Your task to perform on an android device: turn notification dots on Image 0: 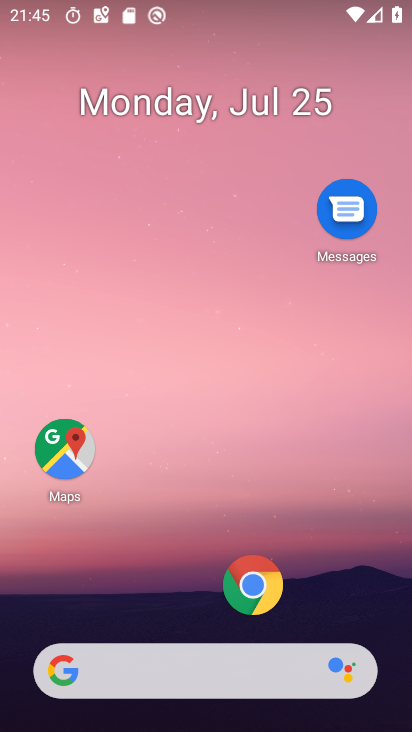
Step 0: drag from (205, 655) to (330, 89)
Your task to perform on an android device: turn notification dots on Image 1: 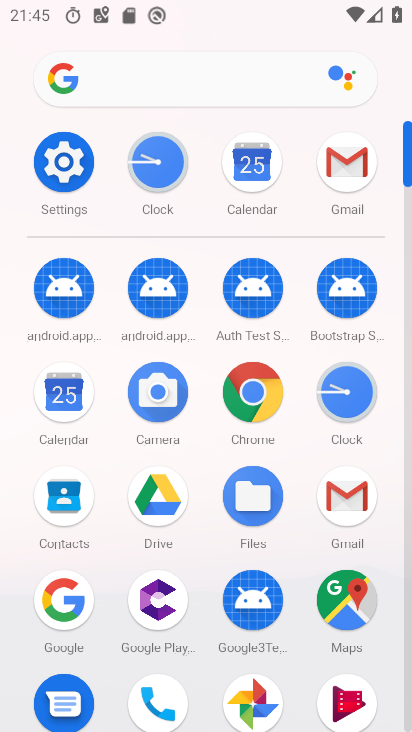
Step 1: click (70, 164)
Your task to perform on an android device: turn notification dots on Image 2: 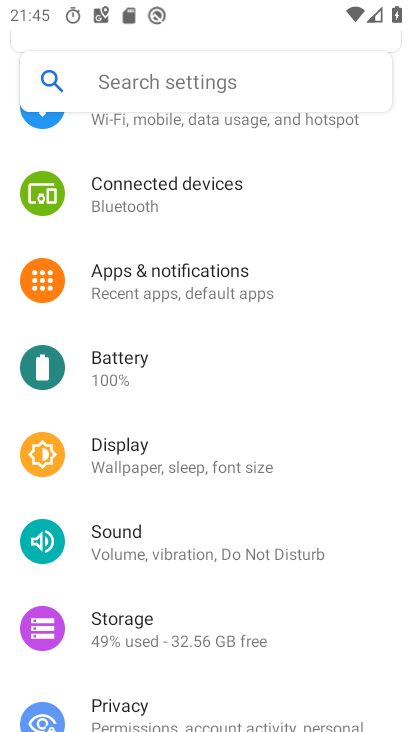
Step 2: click (188, 283)
Your task to perform on an android device: turn notification dots on Image 3: 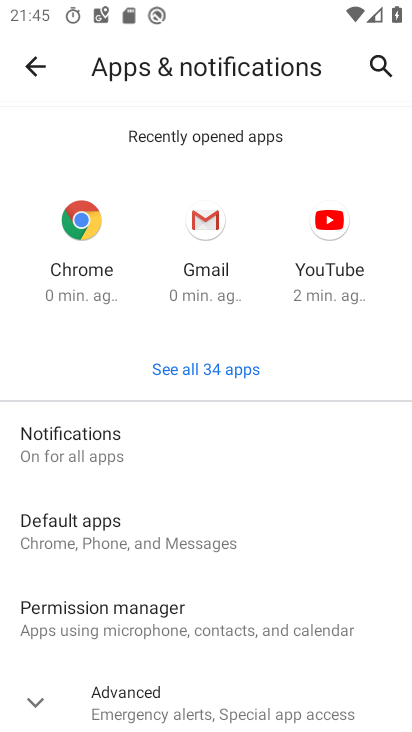
Step 3: drag from (236, 592) to (327, 180)
Your task to perform on an android device: turn notification dots on Image 4: 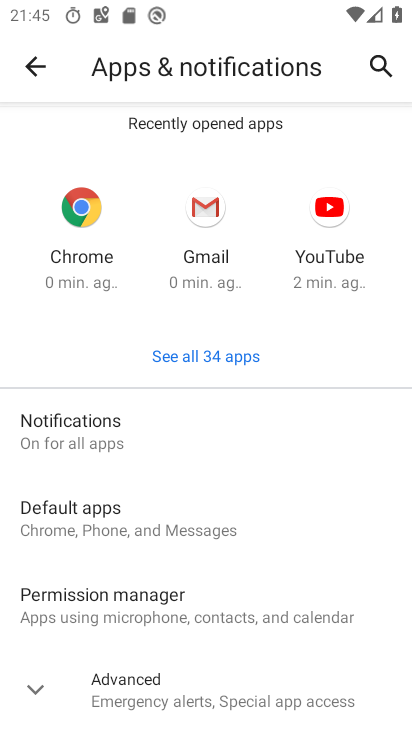
Step 4: click (156, 675)
Your task to perform on an android device: turn notification dots on Image 5: 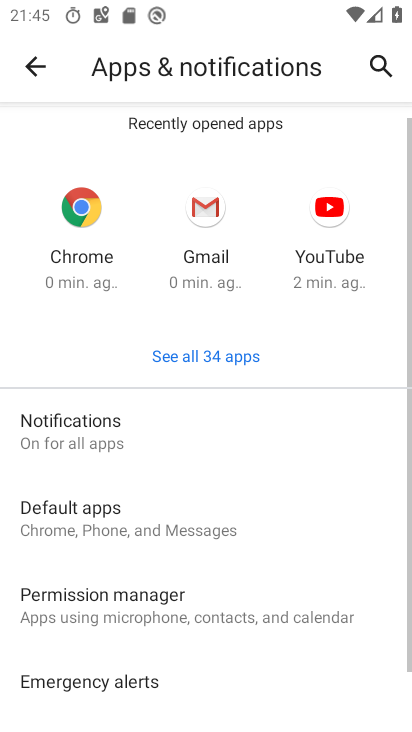
Step 5: drag from (212, 656) to (320, 142)
Your task to perform on an android device: turn notification dots on Image 6: 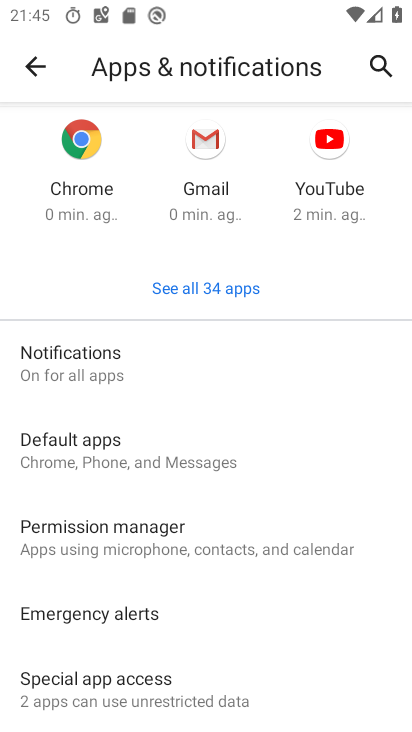
Step 6: click (99, 356)
Your task to perform on an android device: turn notification dots on Image 7: 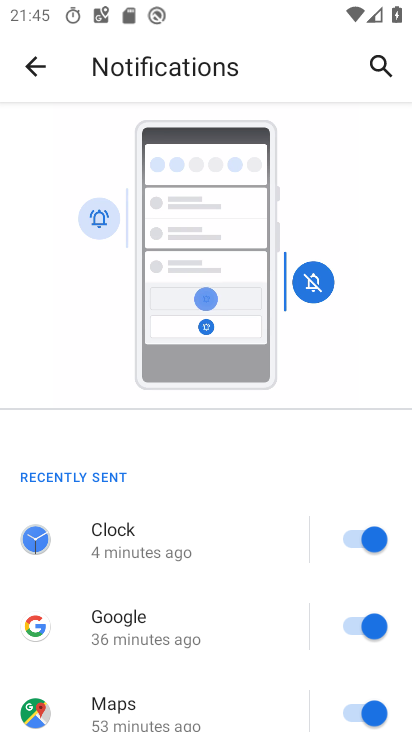
Step 7: drag from (213, 660) to (283, 98)
Your task to perform on an android device: turn notification dots on Image 8: 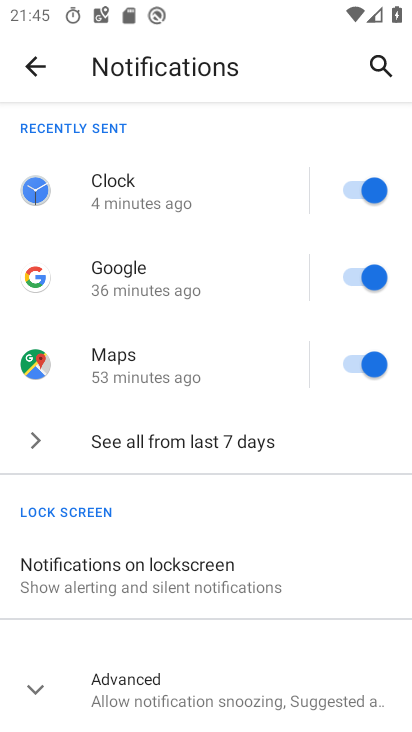
Step 8: click (187, 691)
Your task to perform on an android device: turn notification dots on Image 9: 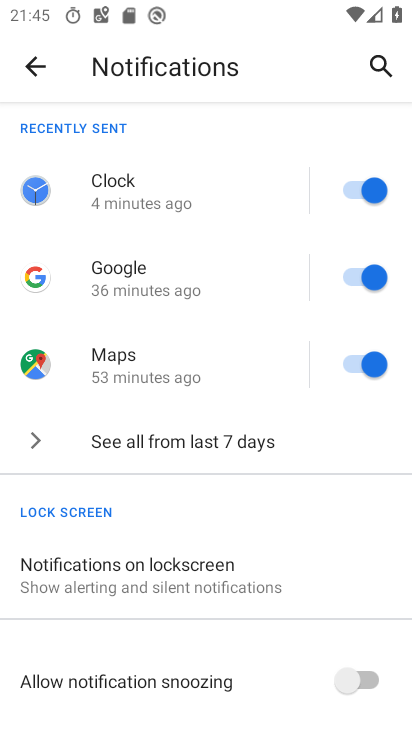
Step 9: drag from (244, 656) to (288, 186)
Your task to perform on an android device: turn notification dots on Image 10: 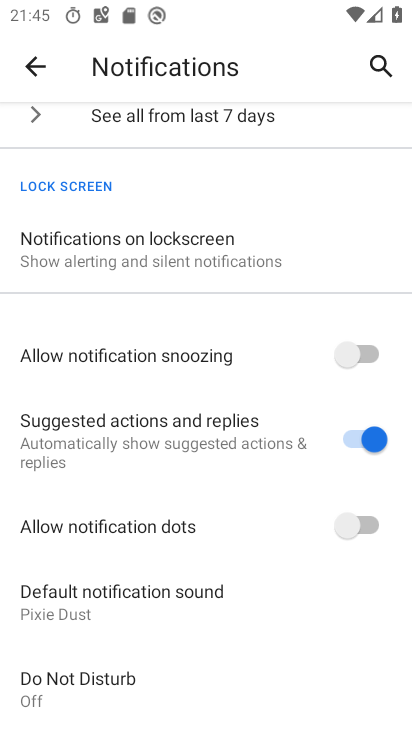
Step 10: click (372, 522)
Your task to perform on an android device: turn notification dots on Image 11: 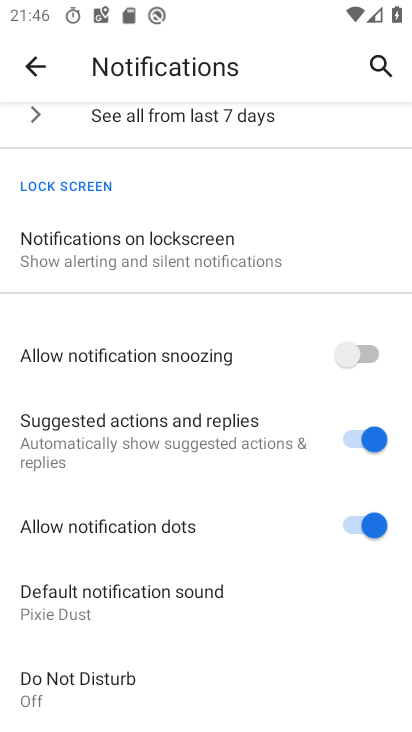
Step 11: task complete